Your task to perform on an android device: turn pop-ups on in chrome Image 0: 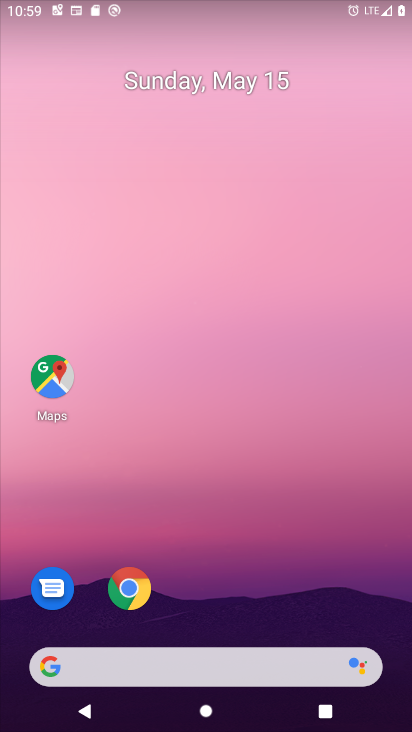
Step 0: click (125, 583)
Your task to perform on an android device: turn pop-ups on in chrome Image 1: 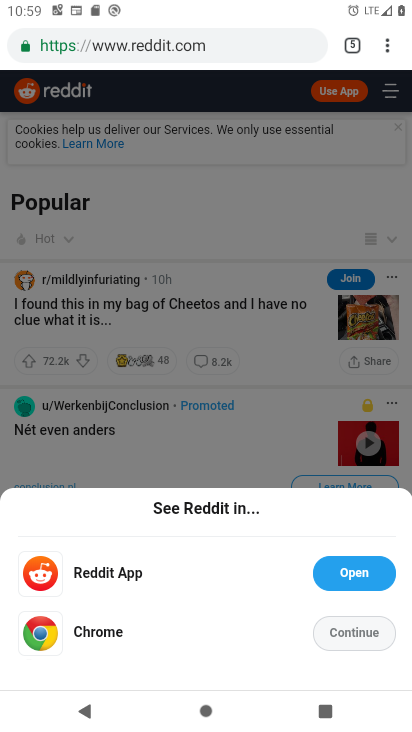
Step 1: click (385, 45)
Your task to perform on an android device: turn pop-ups on in chrome Image 2: 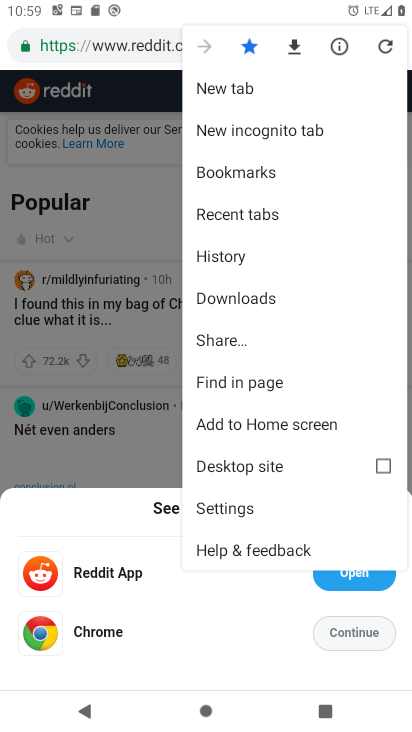
Step 2: click (242, 501)
Your task to perform on an android device: turn pop-ups on in chrome Image 3: 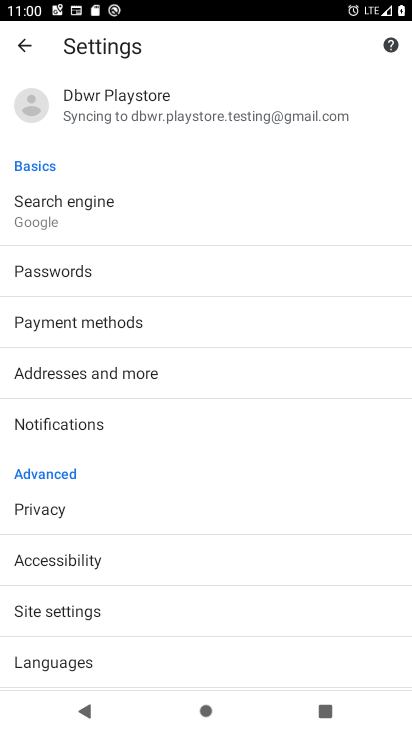
Step 3: click (64, 602)
Your task to perform on an android device: turn pop-ups on in chrome Image 4: 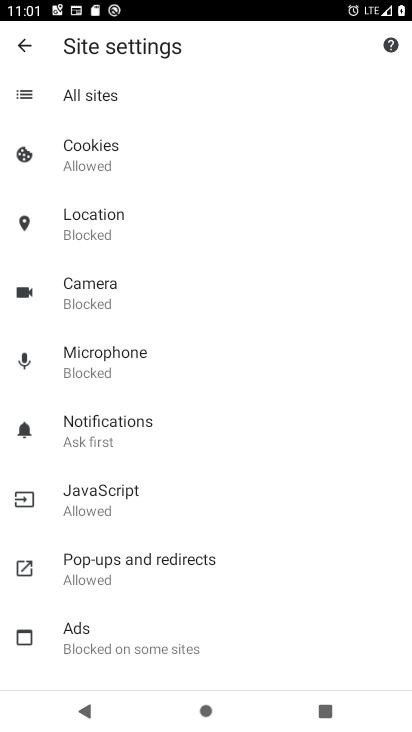
Step 4: click (150, 569)
Your task to perform on an android device: turn pop-ups on in chrome Image 5: 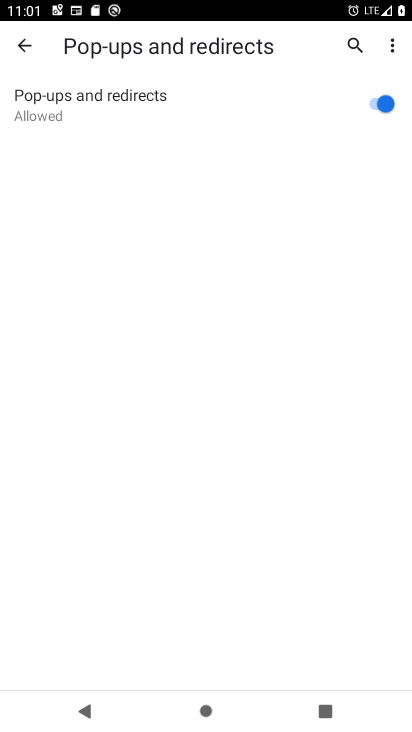
Step 5: task complete